Your task to perform on an android device: Open Google Chrome Image 0: 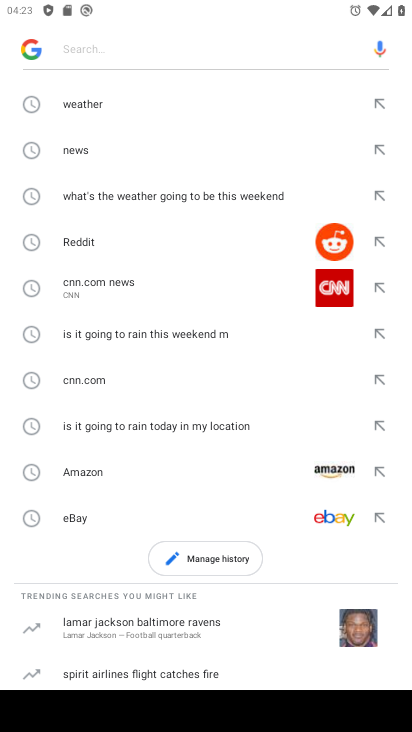
Step 0: press home button
Your task to perform on an android device: Open Google Chrome Image 1: 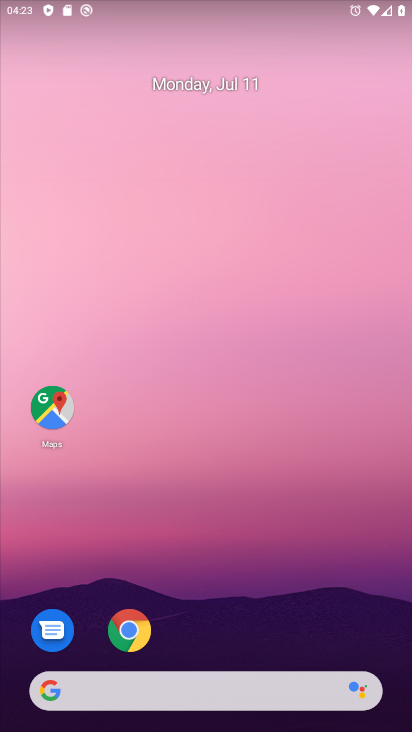
Step 1: click (129, 625)
Your task to perform on an android device: Open Google Chrome Image 2: 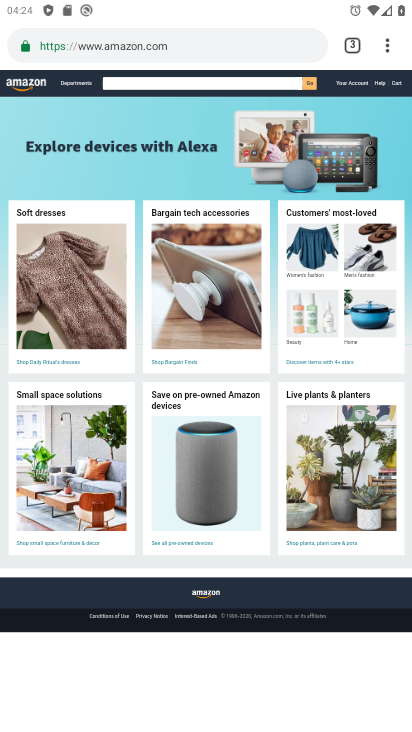
Step 2: task complete